Your task to perform on an android device: Turn on the flashlight Image 0: 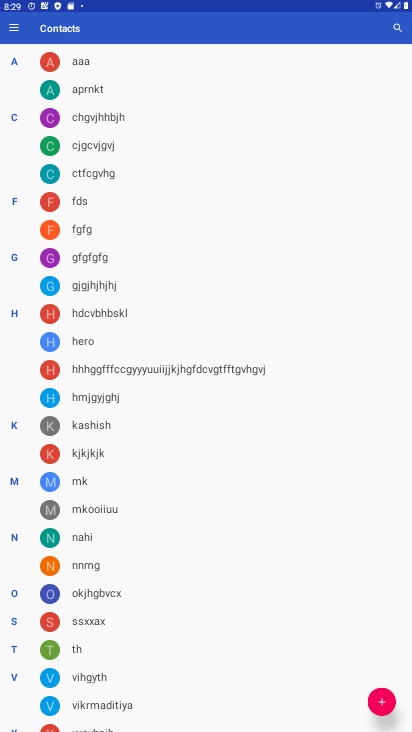
Step 0: press home button
Your task to perform on an android device: Turn on the flashlight Image 1: 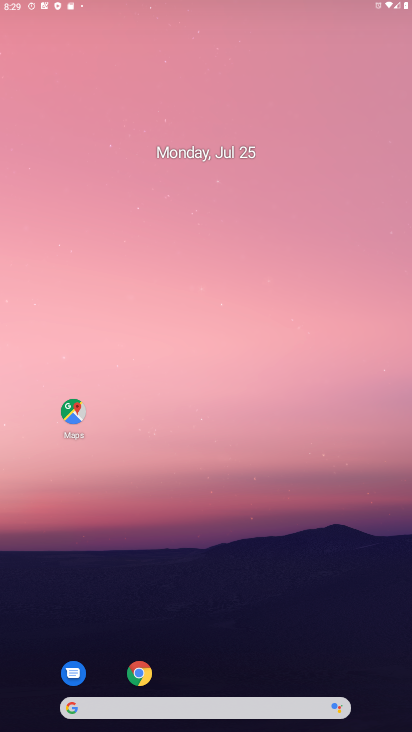
Step 1: drag from (359, 680) to (196, 53)
Your task to perform on an android device: Turn on the flashlight Image 2: 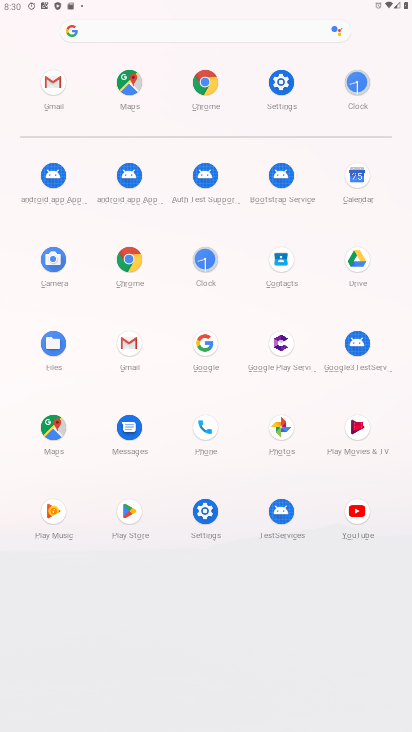
Step 2: click (216, 512)
Your task to perform on an android device: Turn on the flashlight Image 3: 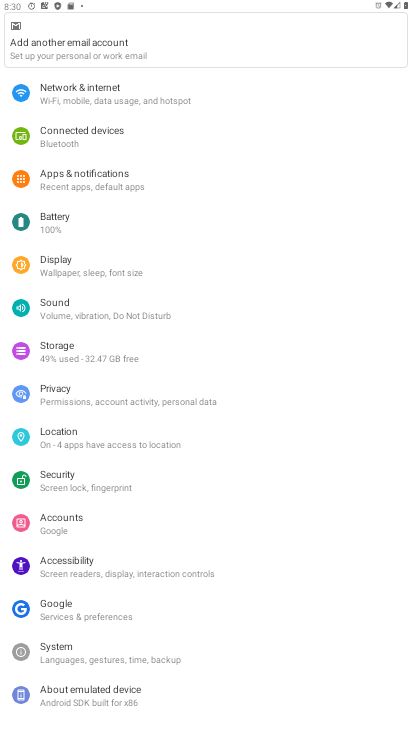
Step 3: task complete